Your task to perform on an android device: change text size in settings app Image 0: 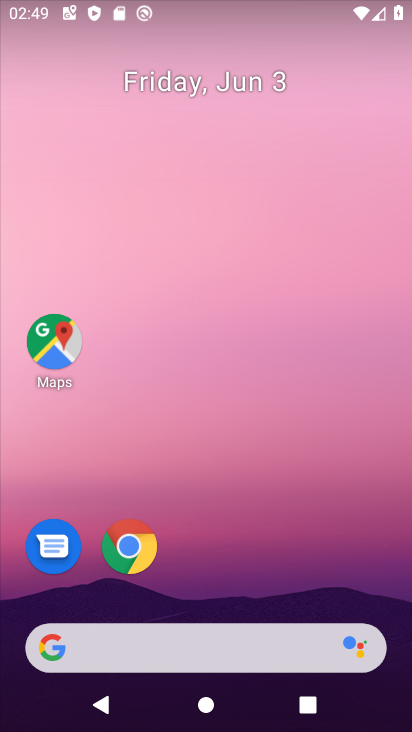
Step 0: drag from (230, 591) to (303, 6)
Your task to perform on an android device: change text size in settings app Image 1: 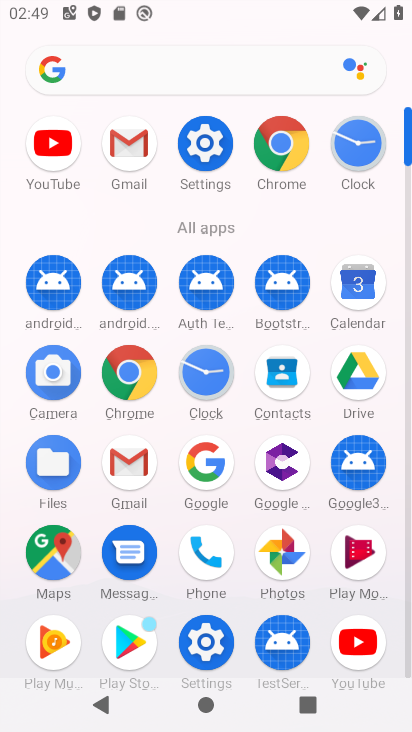
Step 1: click (206, 148)
Your task to perform on an android device: change text size in settings app Image 2: 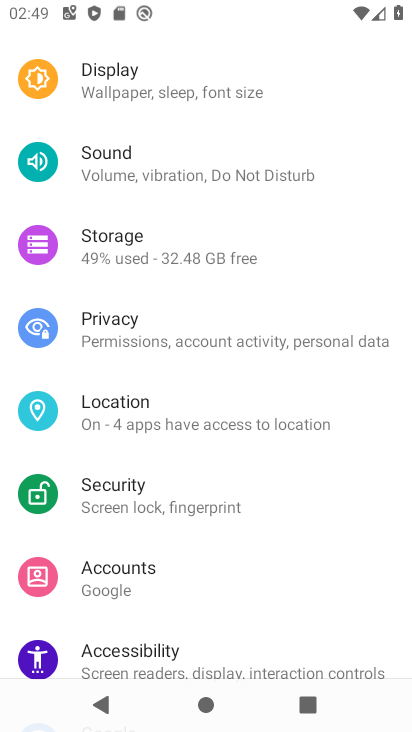
Step 2: drag from (187, 587) to (227, 519)
Your task to perform on an android device: change text size in settings app Image 3: 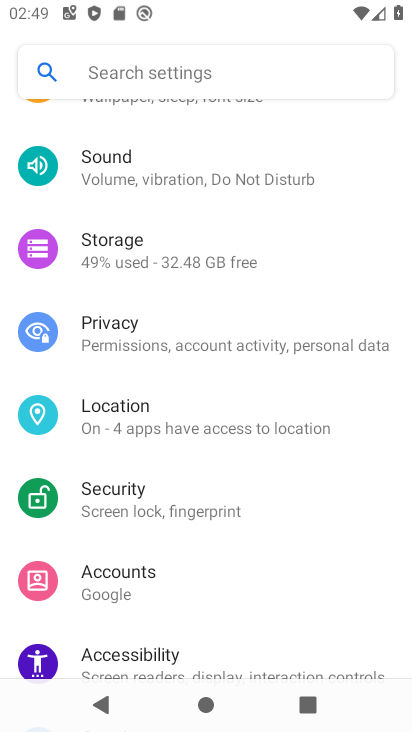
Step 3: drag from (220, 190) to (241, 443)
Your task to perform on an android device: change text size in settings app Image 4: 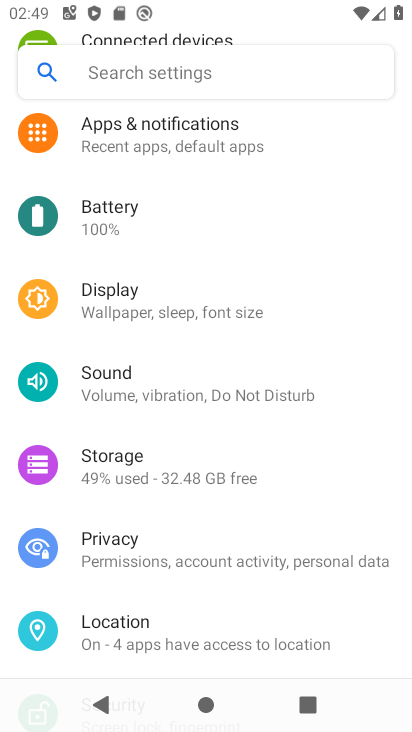
Step 4: click (224, 312)
Your task to perform on an android device: change text size in settings app Image 5: 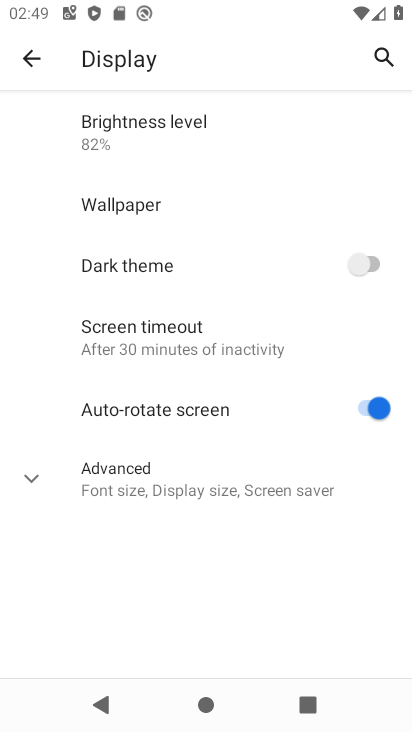
Step 5: click (174, 471)
Your task to perform on an android device: change text size in settings app Image 6: 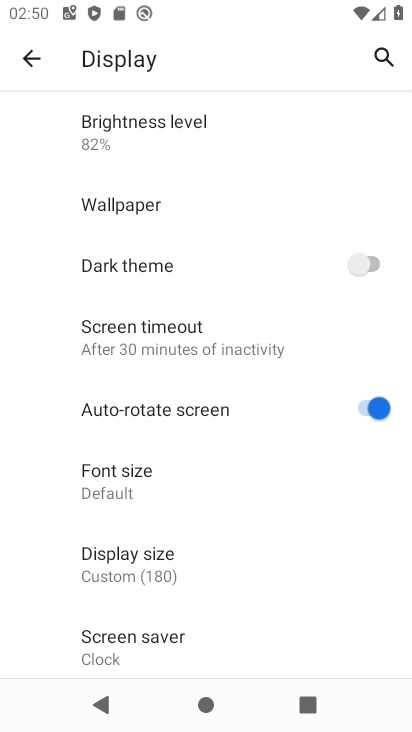
Step 6: click (130, 508)
Your task to perform on an android device: change text size in settings app Image 7: 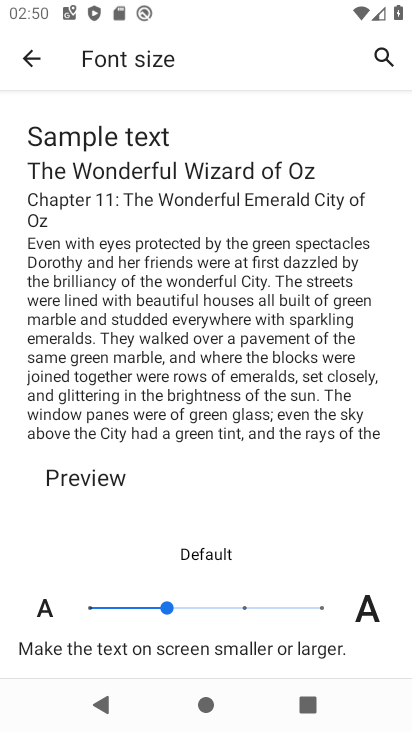
Step 7: click (229, 608)
Your task to perform on an android device: change text size in settings app Image 8: 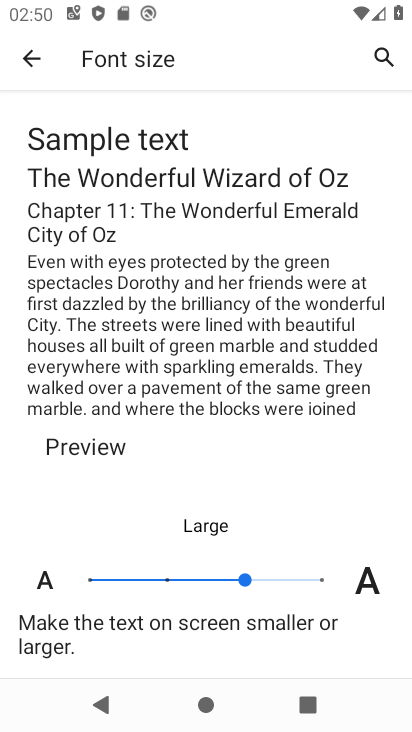
Step 8: task complete